Your task to perform on an android device: turn on the 12-hour format for clock Image 0: 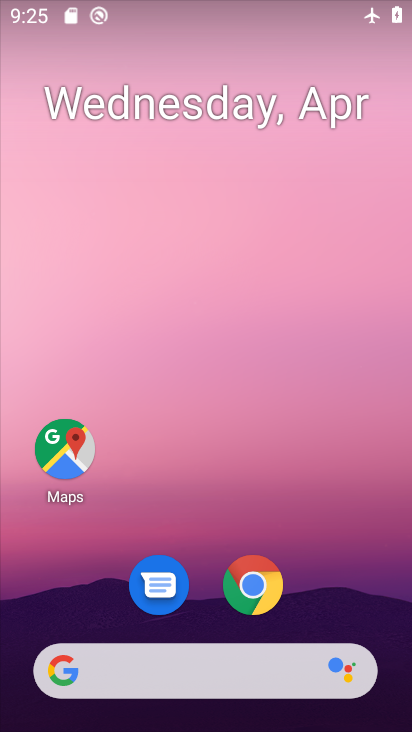
Step 0: drag from (336, 561) to (327, 108)
Your task to perform on an android device: turn on the 12-hour format for clock Image 1: 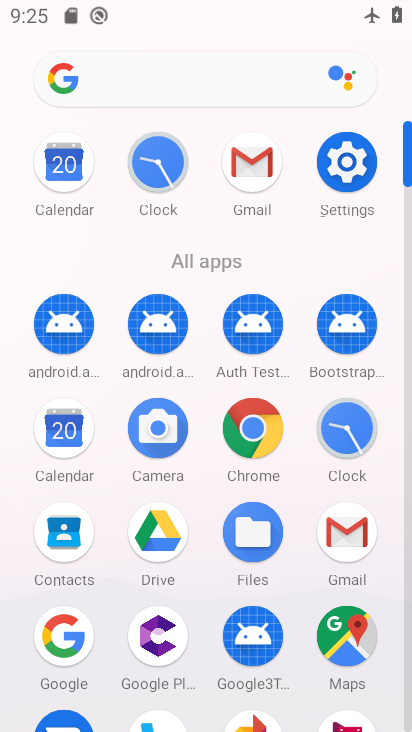
Step 1: click (345, 430)
Your task to perform on an android device: turn on the 12-hour format for clock Image 2: 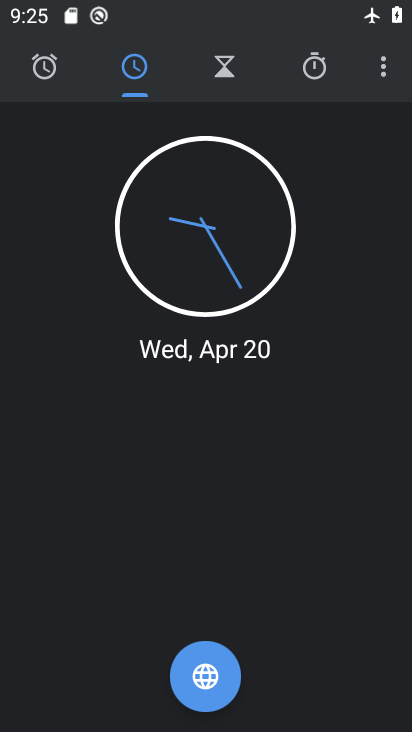
Step 2: click (383, 72)
Your task to perform on an android device: turn on the 12-hour format for clock Image 3: 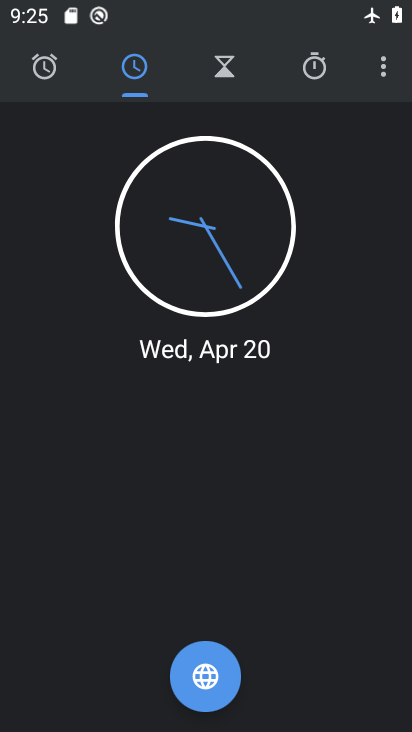
Step 3: click (383, 72)
Your task to perform on an android device: turn on the 12-hour format for clock Image 4: 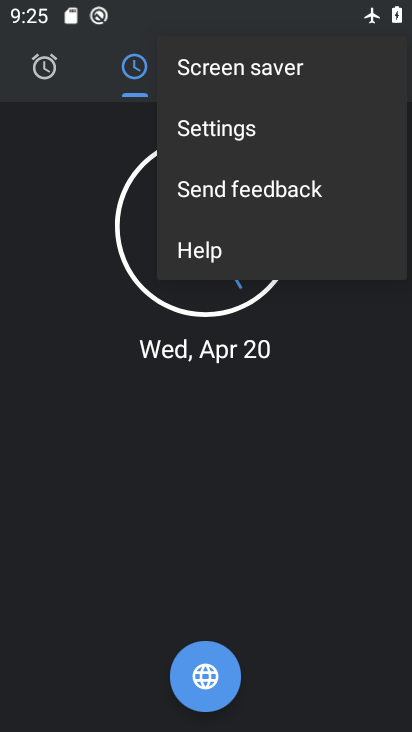
Step 4: click (312, 129)
Your task to perform on an android device: turn on the 12-hour format for clock Image 5: 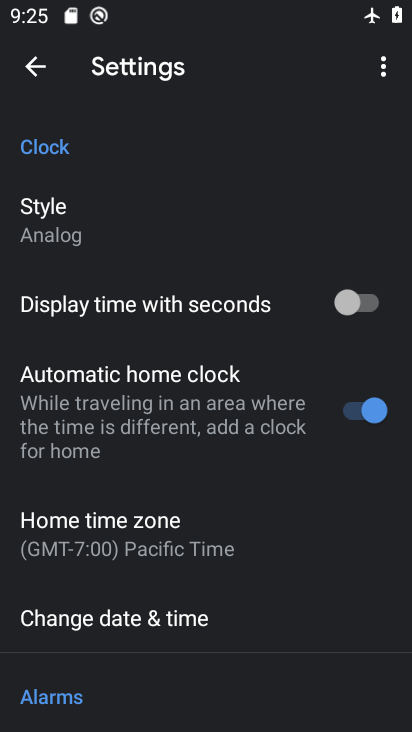
Step 5: click (224, 621)
Your task to perform on an android device: turn on the 12-hour format for clock Image 6: 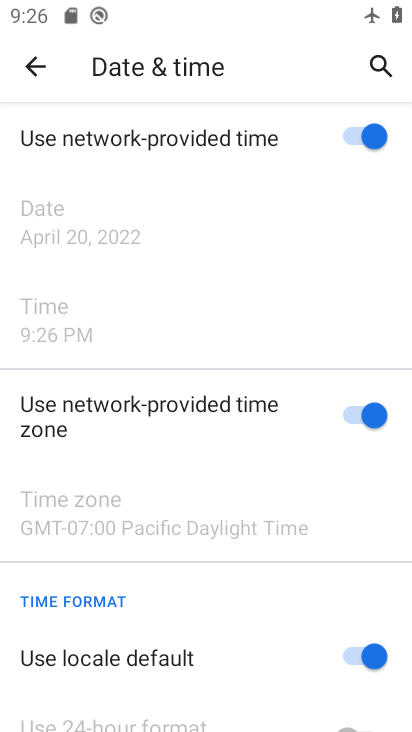
Step 6: task complete